Your task to perform on an android device: Go to CNN.com Image 0: 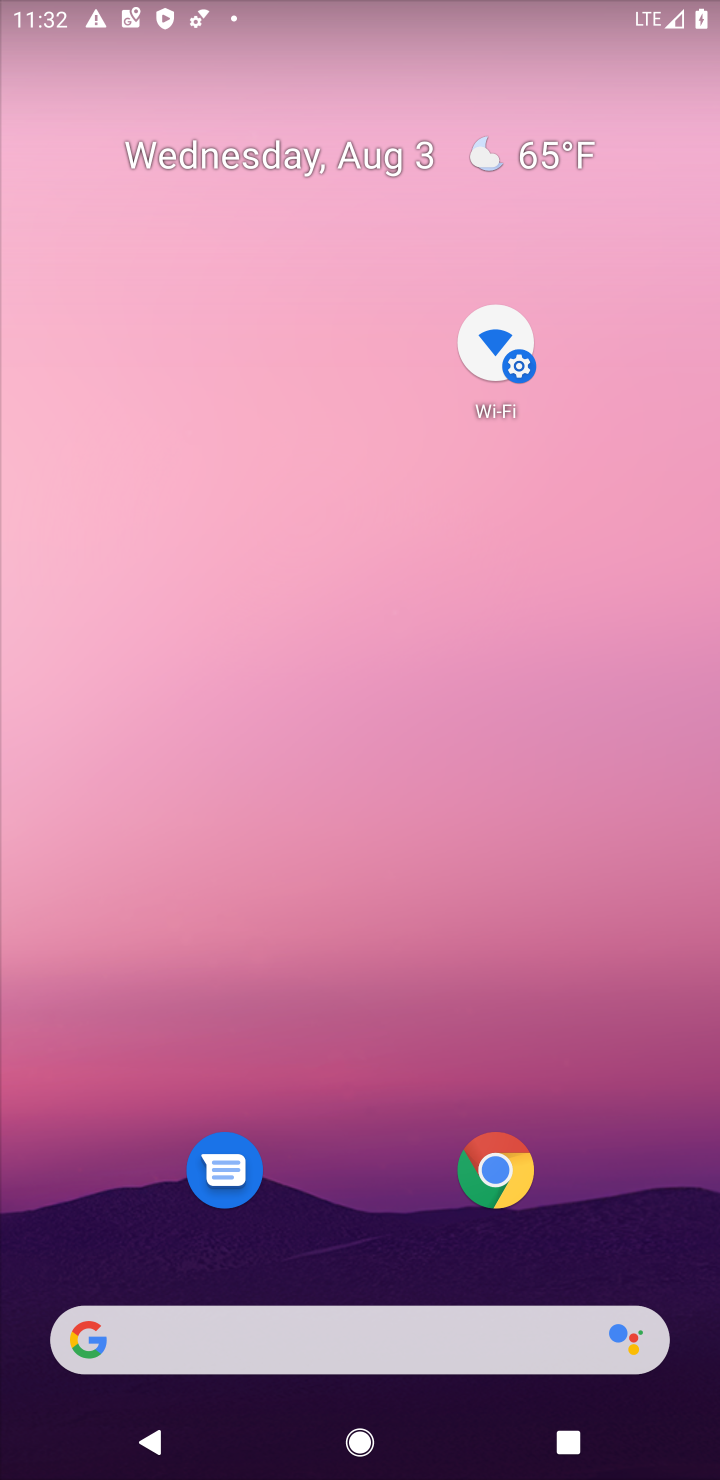
Step 0: drag from (301, 1244) to (345, 500)
Your task to perform on an android device: Go to CNN.com Image 1: 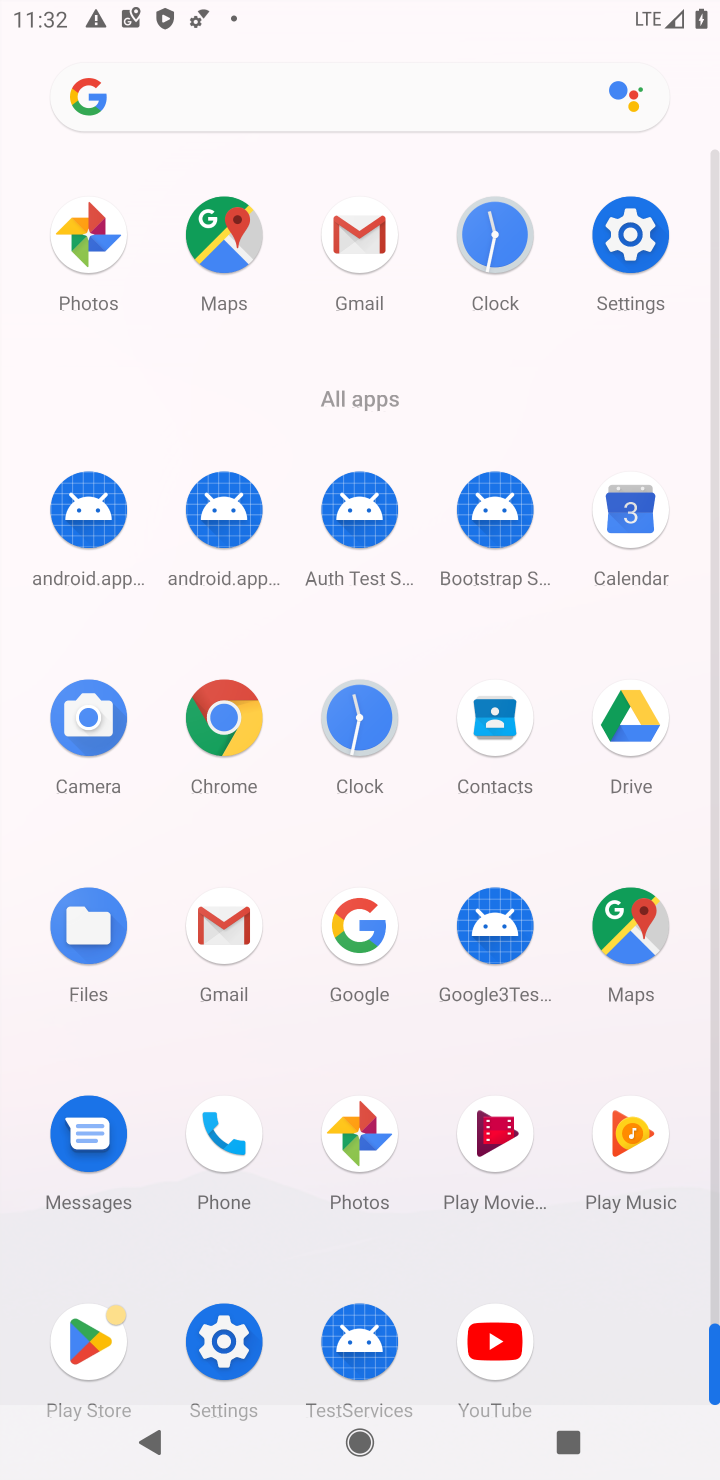
Step 1: click (214, 717)
Your task to perform on an android device: Go to CNN.com Image 2: 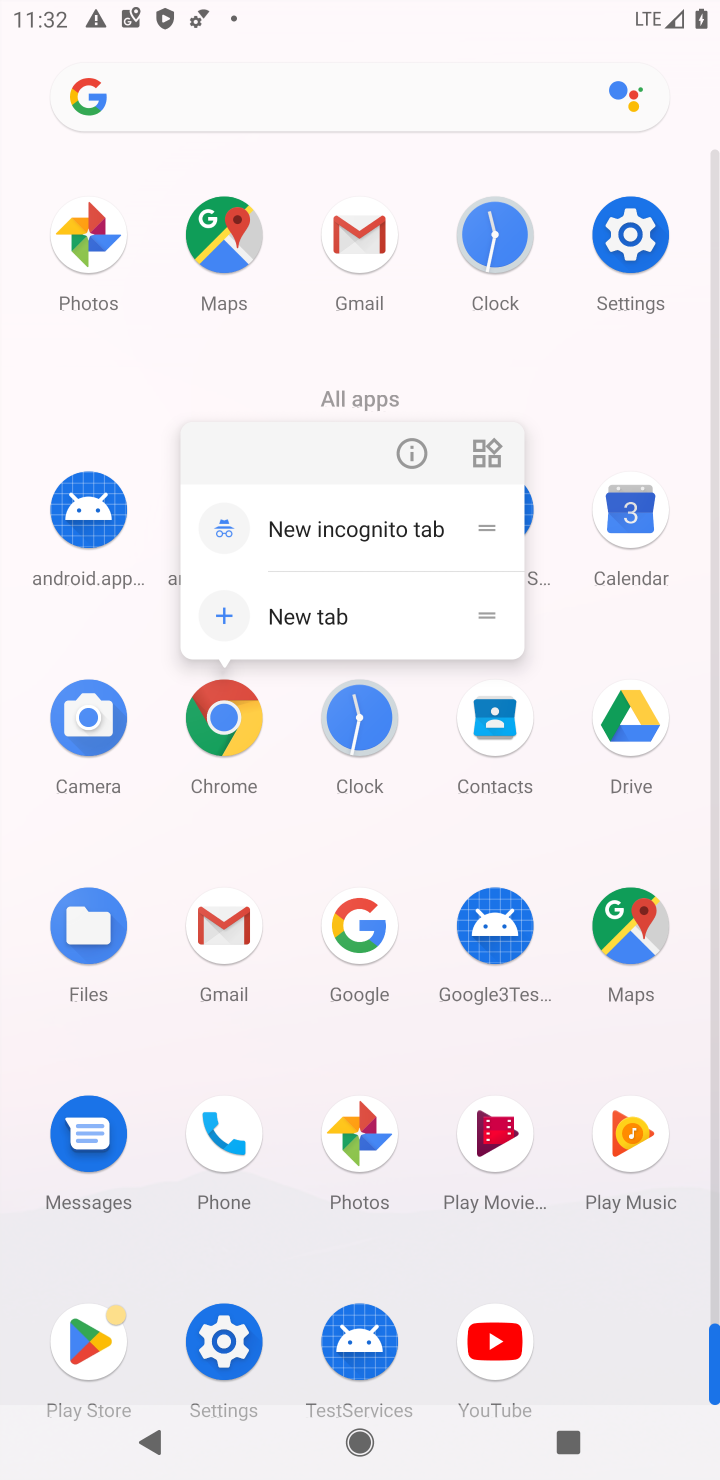
Step 2: click (420, 453)
Your task to perform on an android device: Go to CNN.com Image 3: 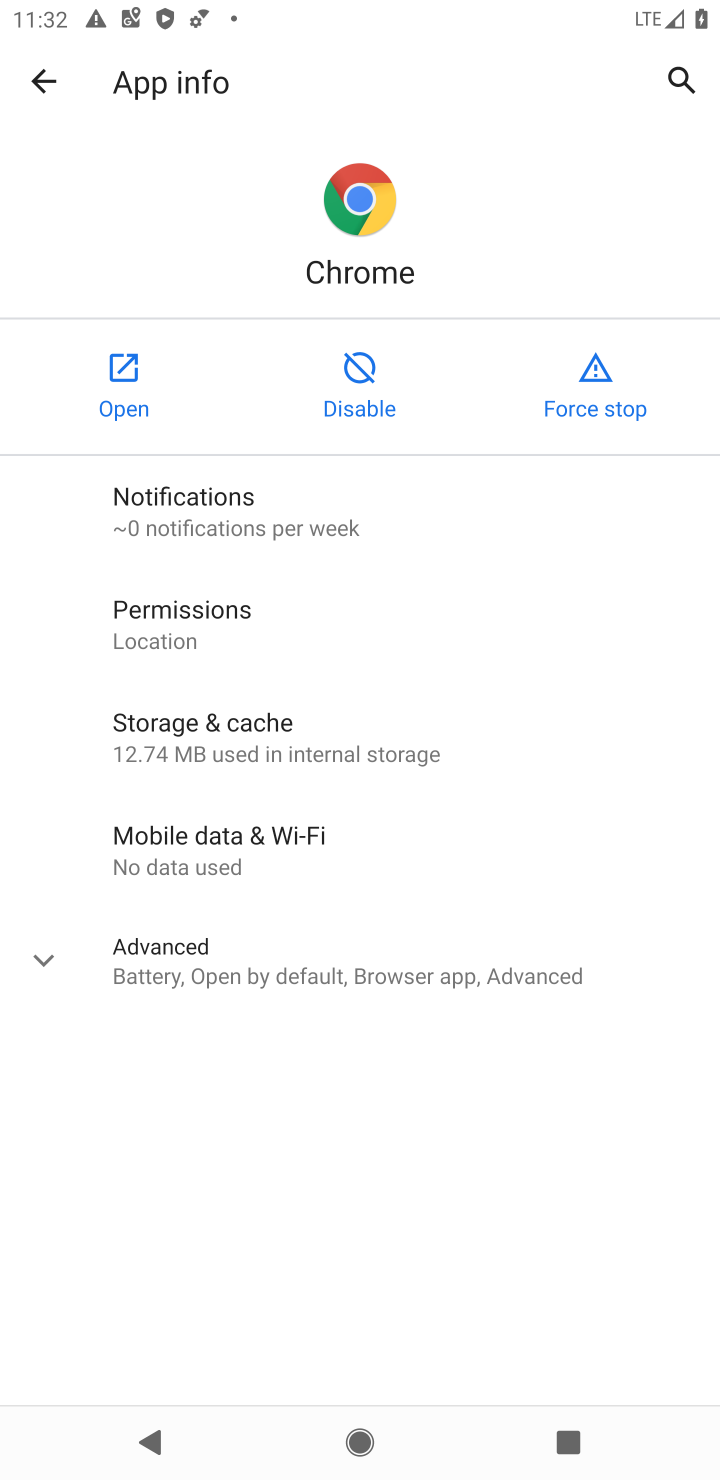
Step 3: click (91, 408)
Your task to perform on an android device: Go to CNN.com Image 4: 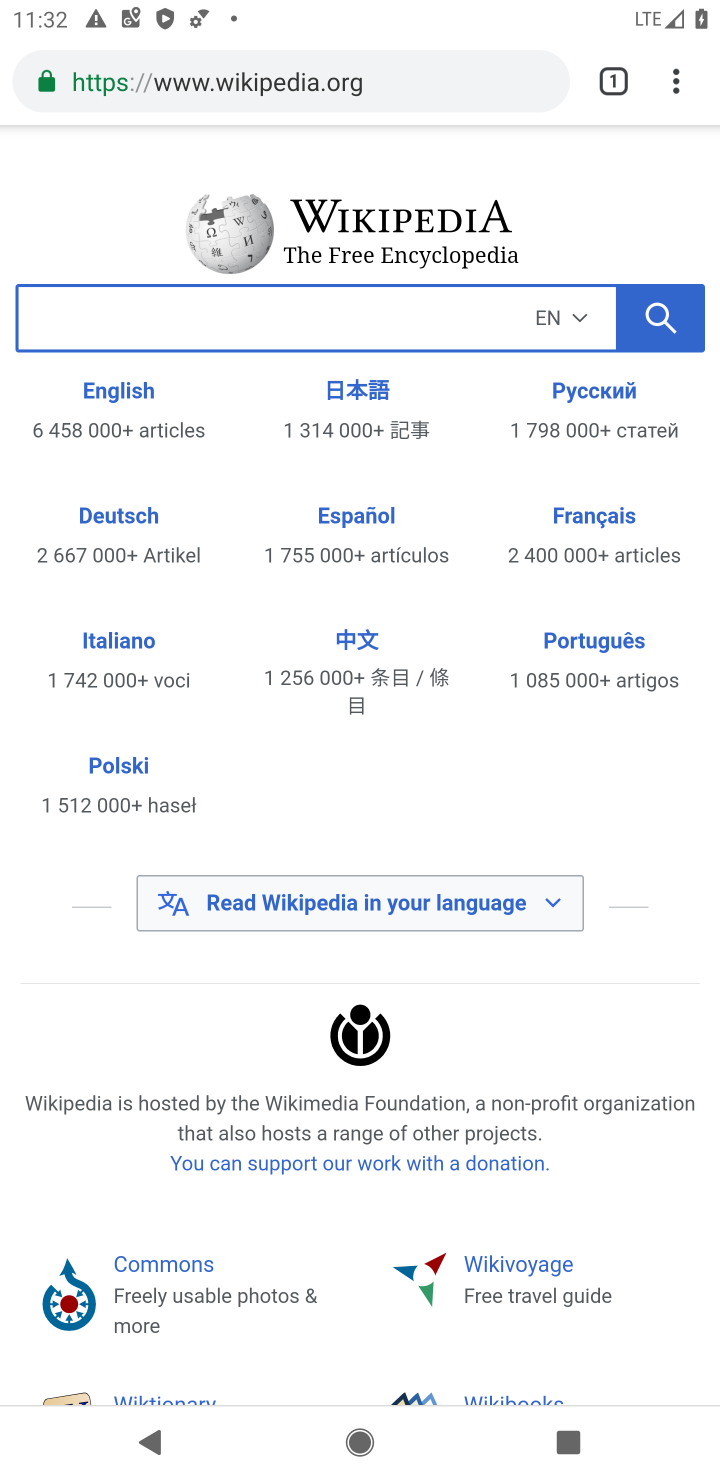
Step 4: click (264, 75)
Your task to perform on an android device: Go to CNN.com Image 5: 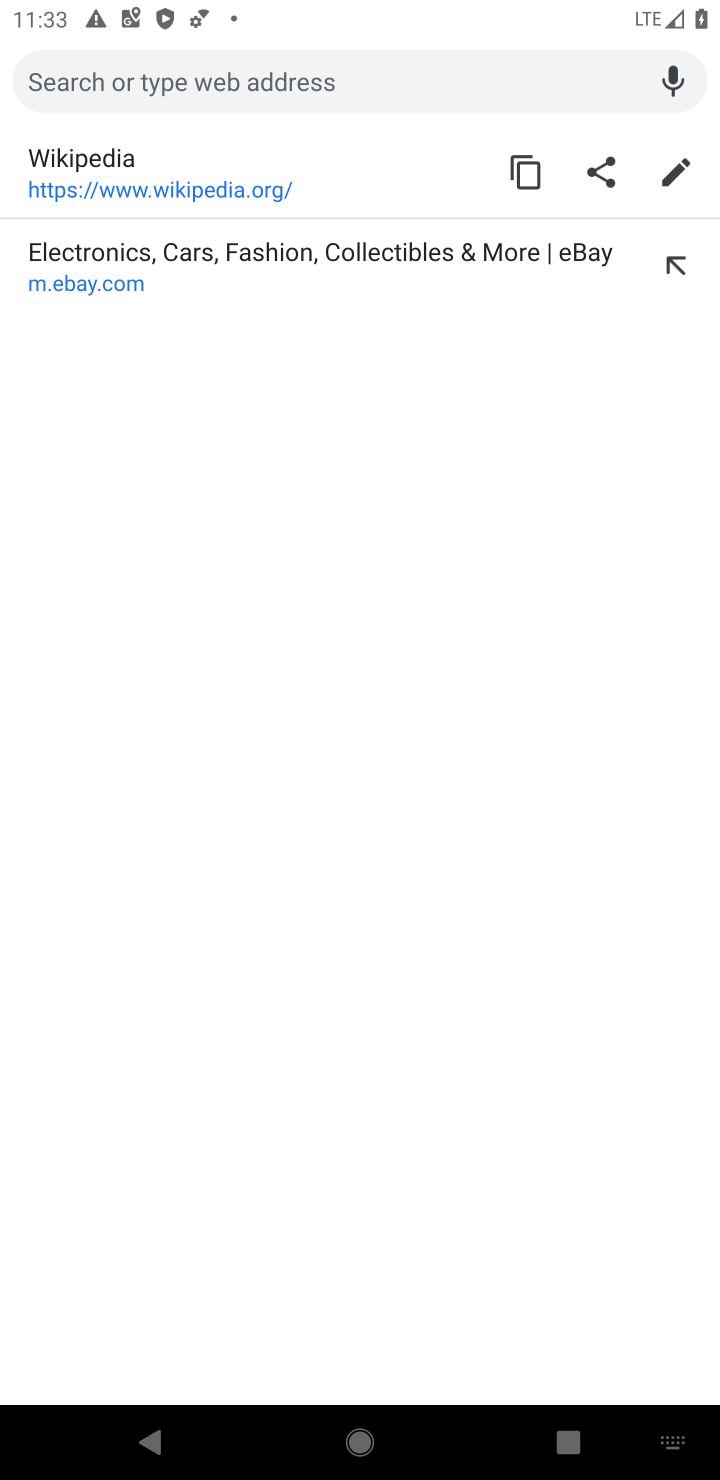
Step 5: type "CNN.com"
Your task to perform on an android device: Go to CNN.com Image 6: 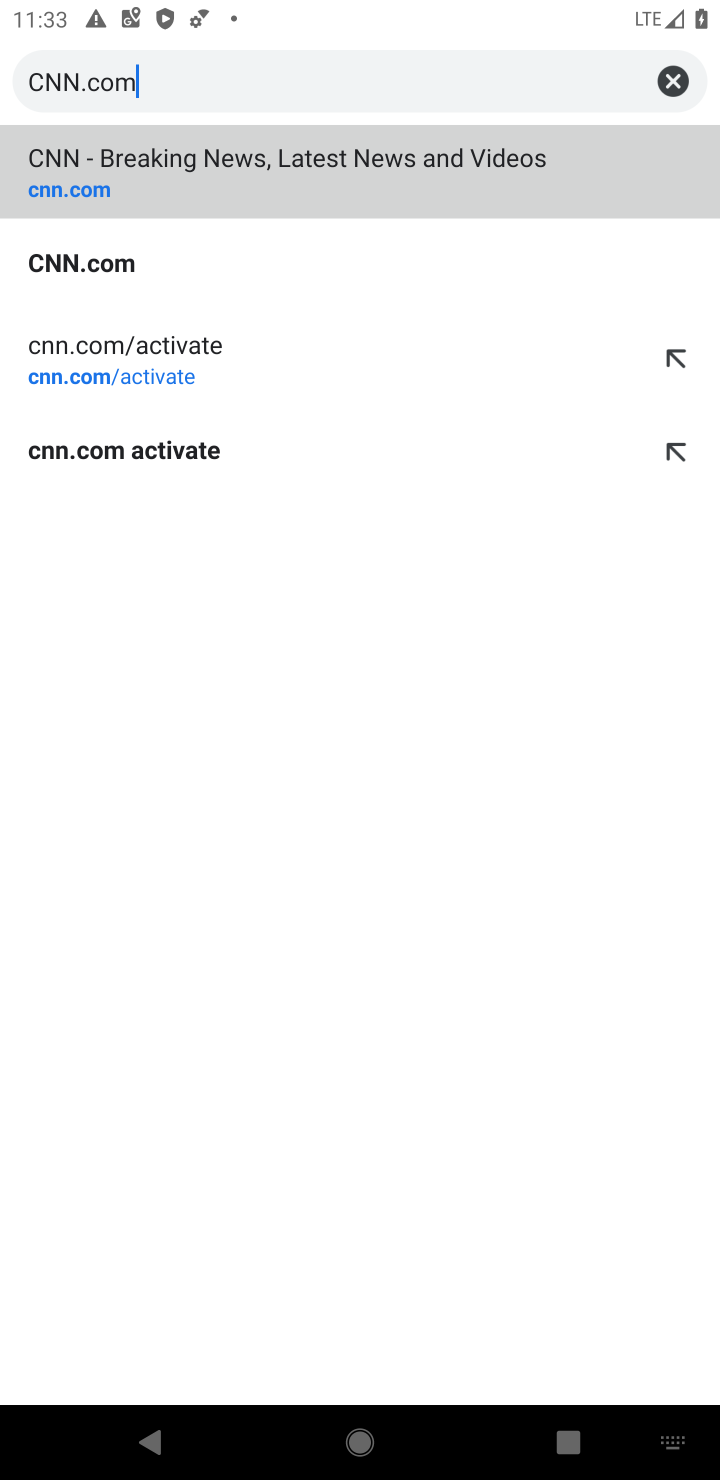
Step 6: type ""
Your task to perform on an android device: Go to CNN.com Image 7: 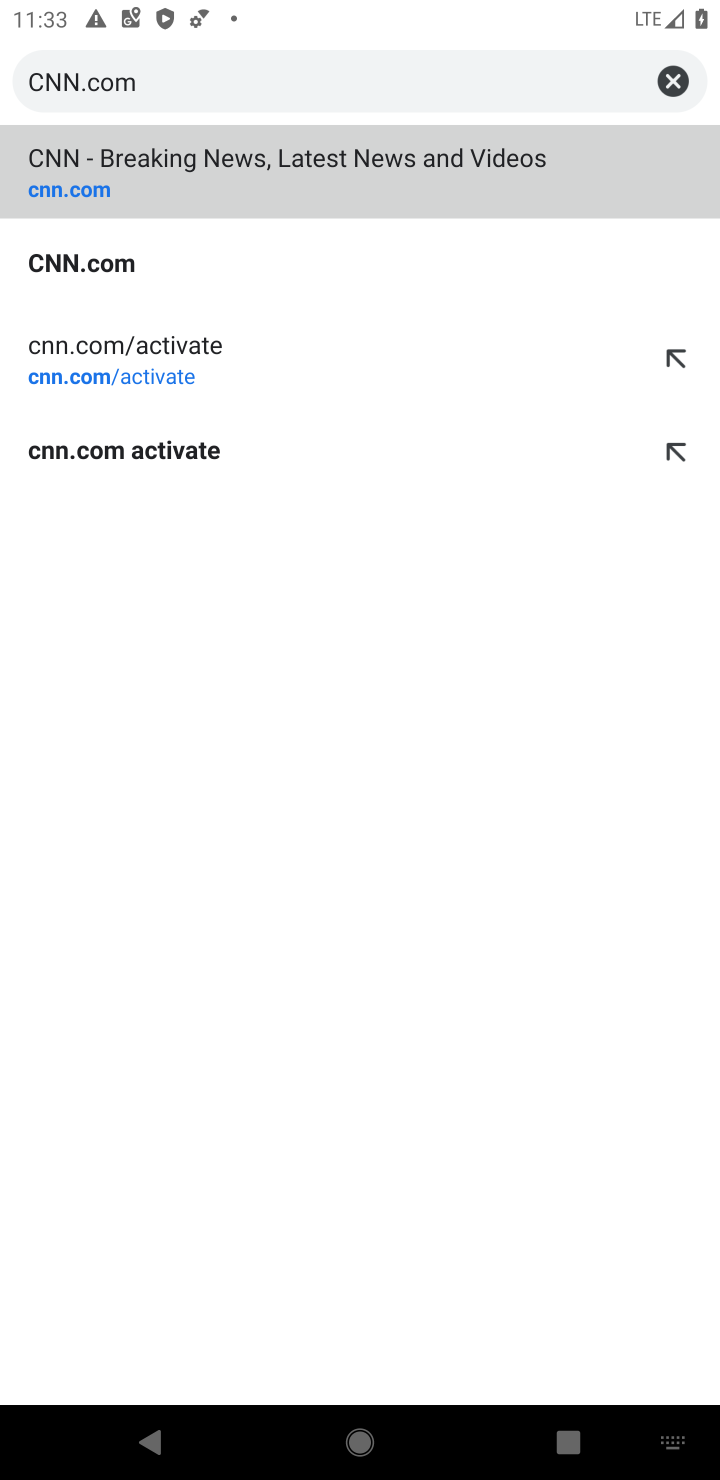
Step 7: click (61, 153)
Your task to perform on an android device: Go to CNN.com Image 8: 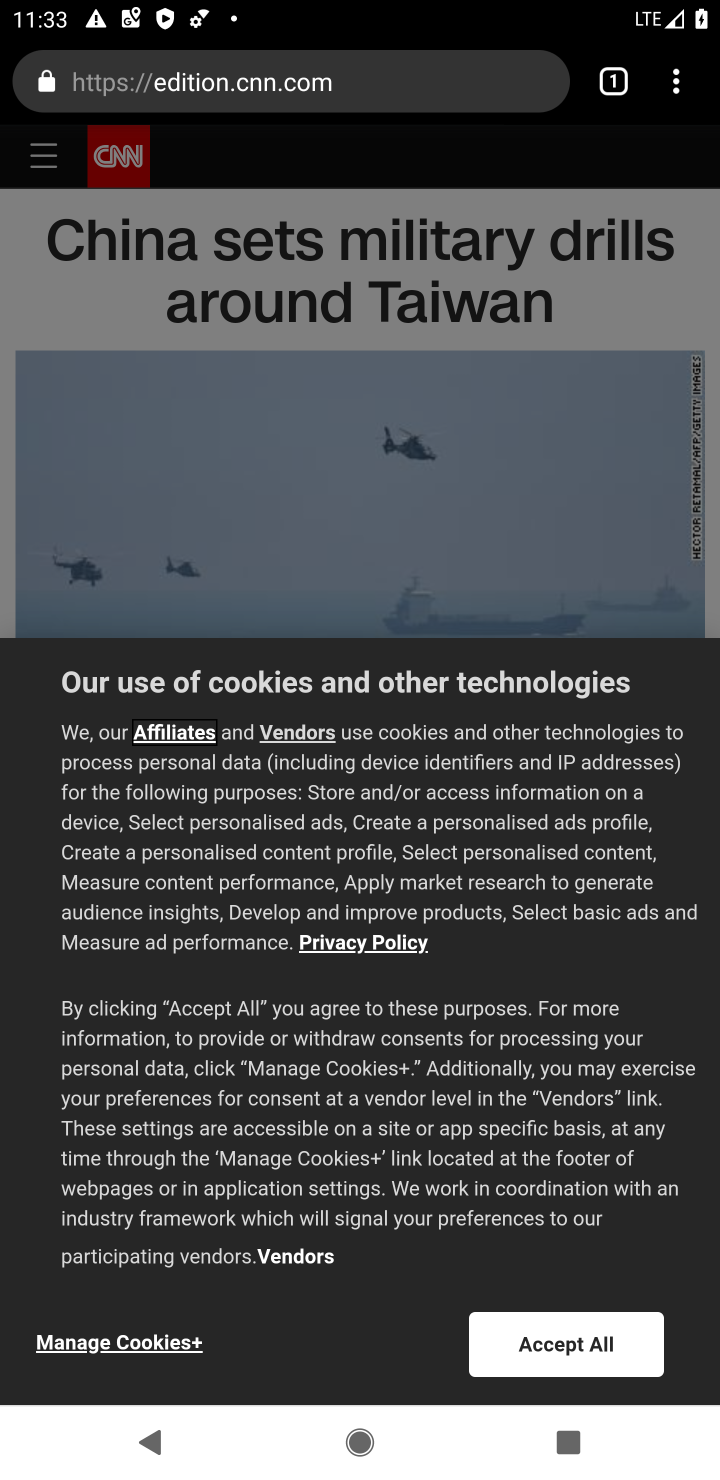
Step 8: task complete